Your task to perform on an android device: empty trash in the gmail app Image 0: 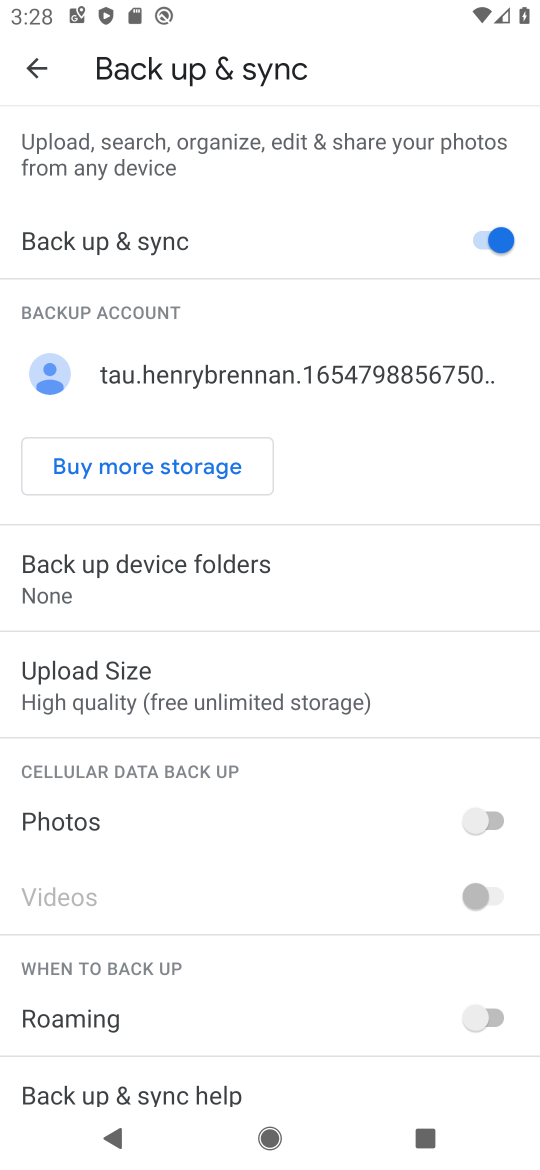
Step 0: press home button
Your task to perform on an android device: empty trash in the gmail app Image 1: 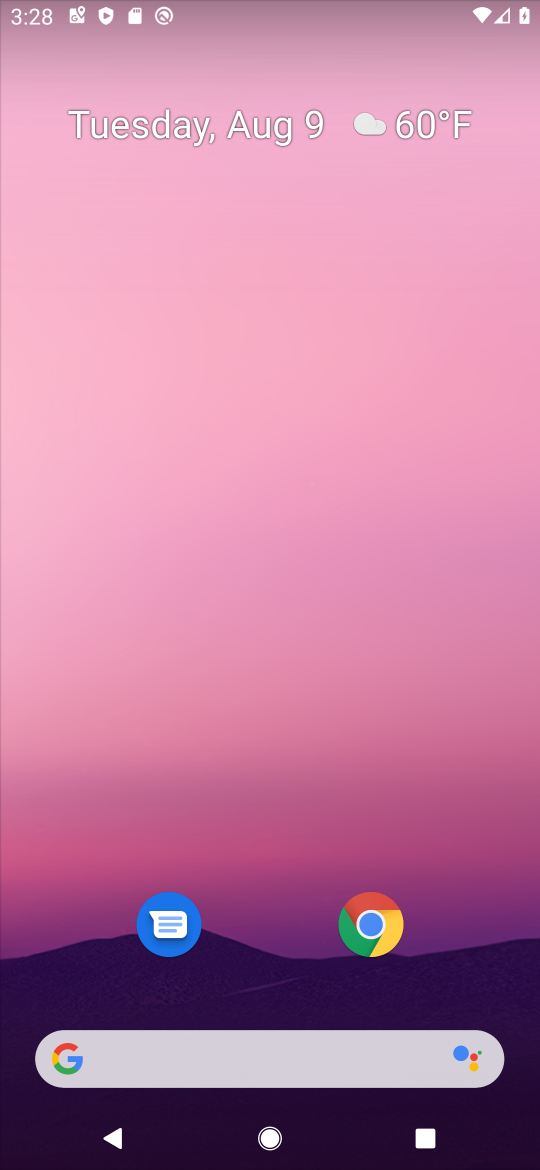
Step 1: drag from (266, 925) to (342, 1)
Your task to perform on an android device: empty trash in the gmail app Image 2: 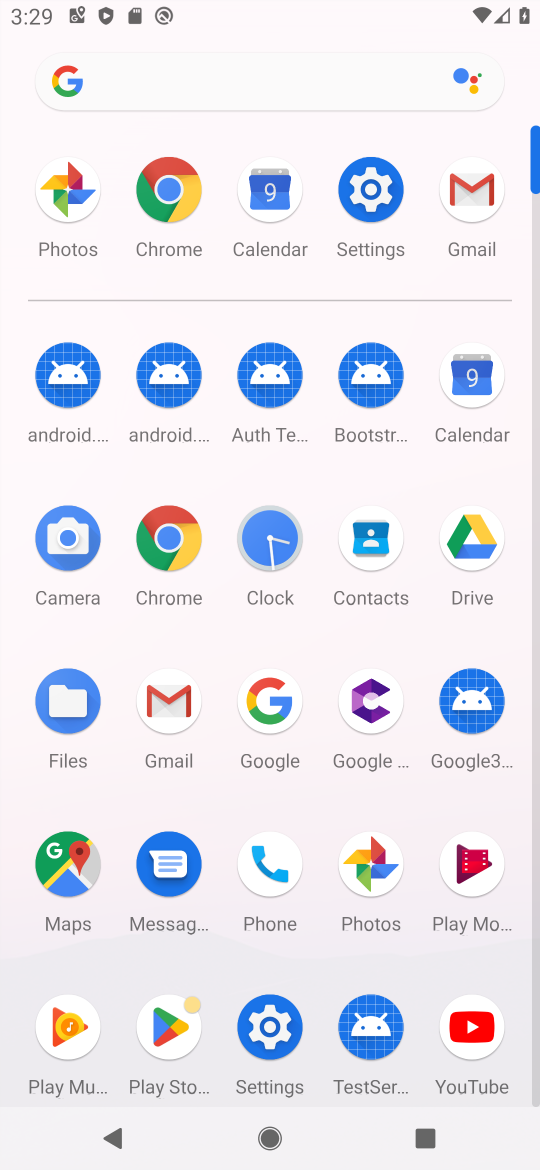
Step 2: click (179, 698)
Your task to perform on an android device: empty trash in the gmail app Image 3: 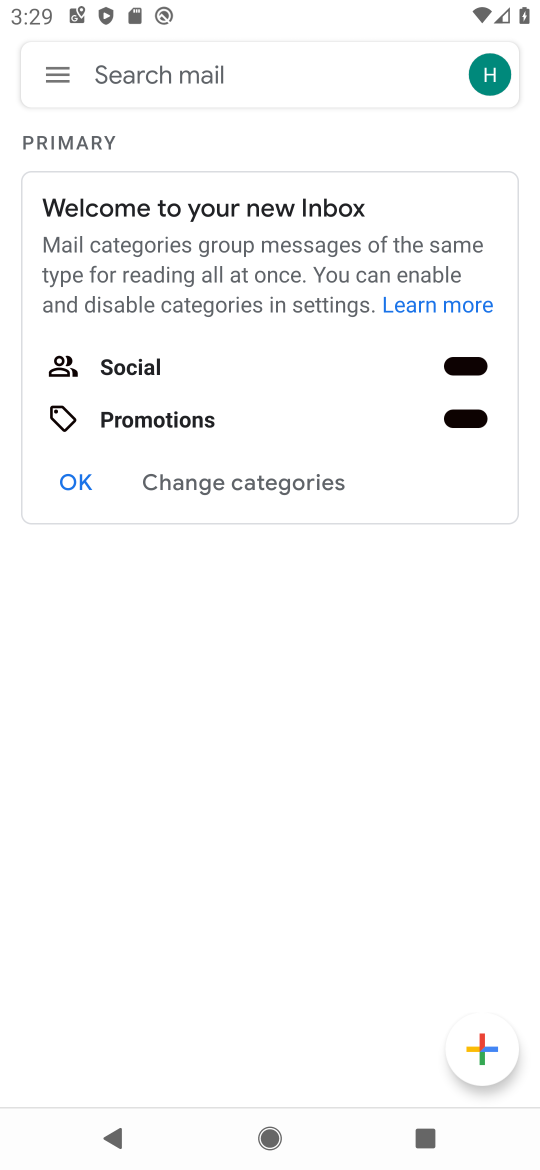
Step 3: click (59, 67)
Your task to perform on an android device: empty trash in the gmail app Image 4: 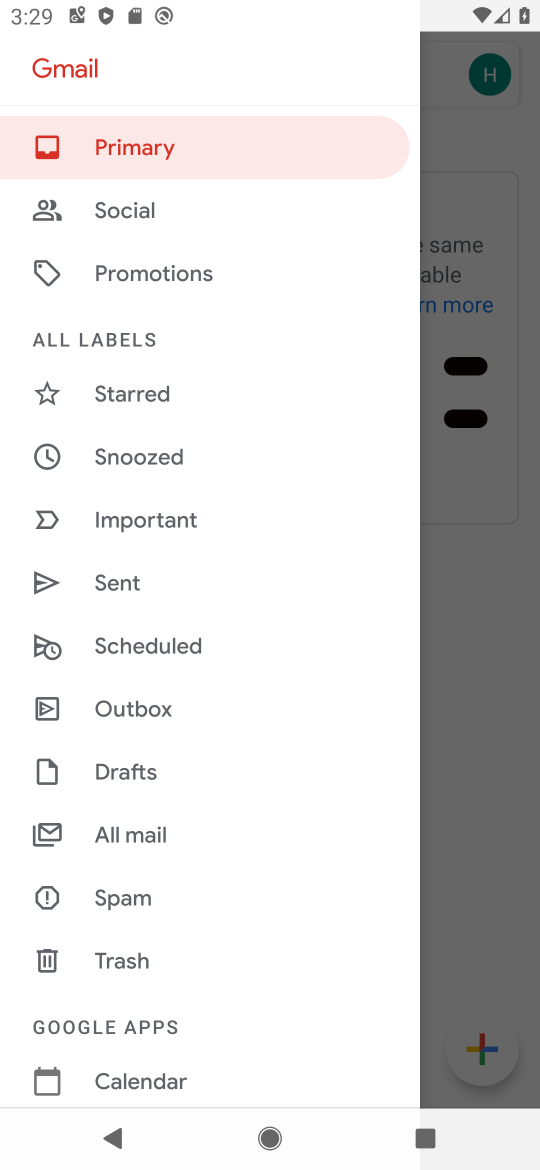
Step 4: click (129, 959)
Your task to perform on an android device: empty trash in the gmail app Image 5: 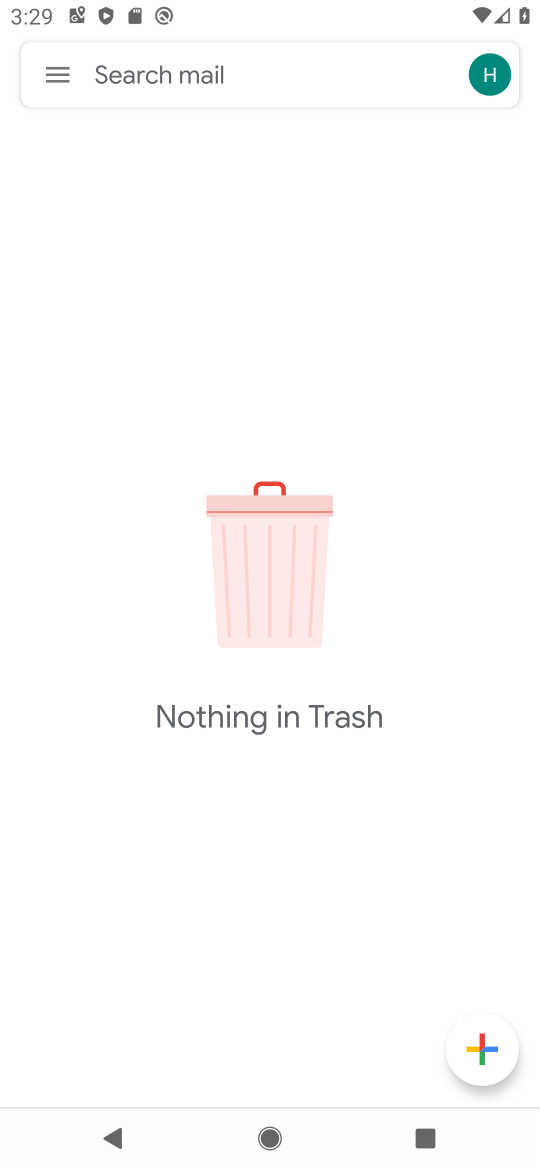
Step 5: task complete